Your task to perform on an android device: delete location history Image 0: 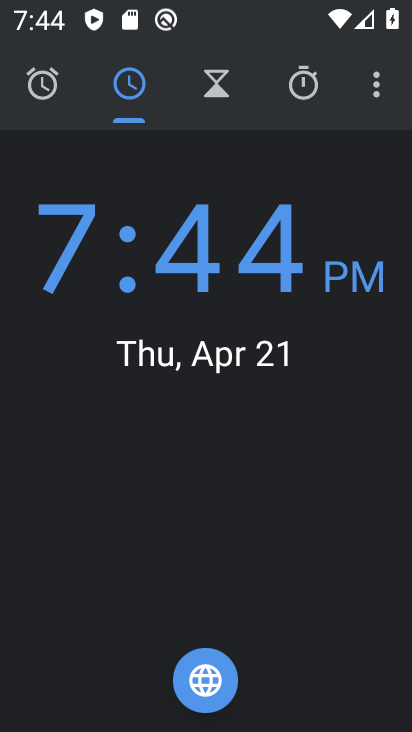
Step 0: press home button
Your task to perform on an android device: delete location history Image 1: 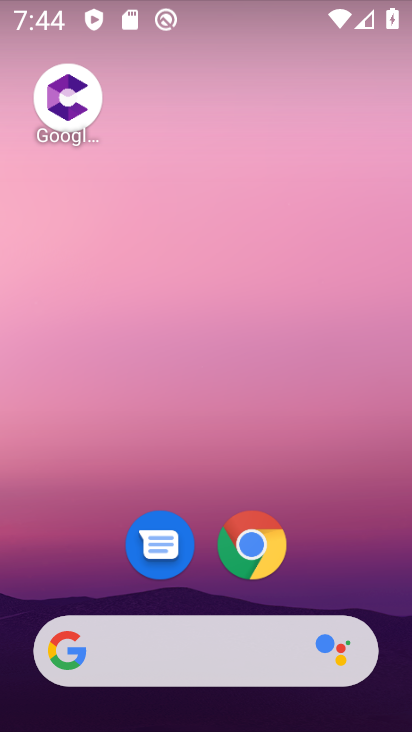
Step 1: drag from (237, 579) to (233, 12)
Your task to perform on an android device: delete location history Image 2: 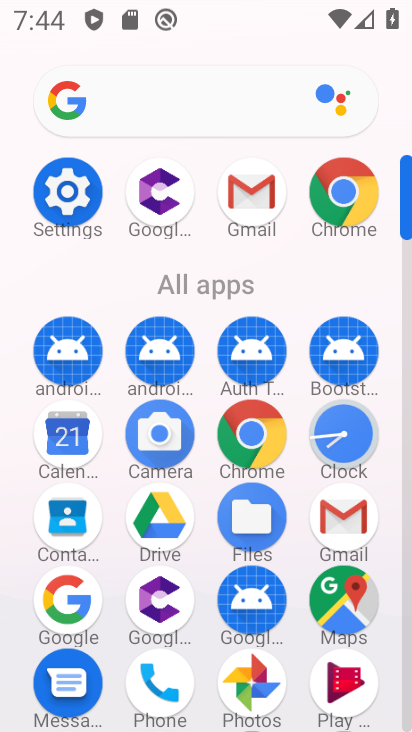
Step 2: click (334, 587)
Your task to perform on an android device: delete location history Image 3: 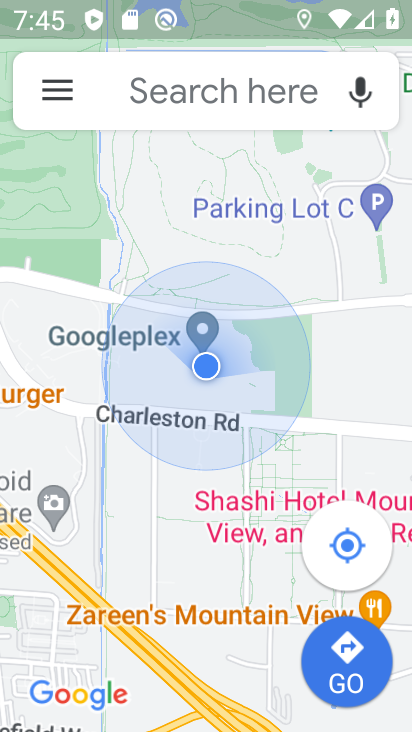
Step 3: click (64, 86)
Your task to perform on an android device: delete location history Image 4: 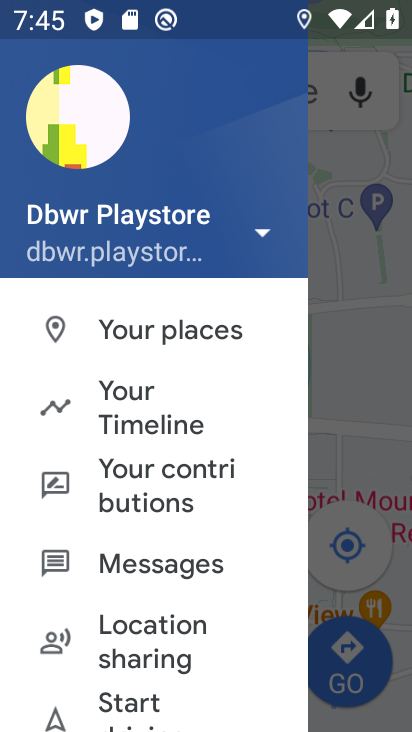
Step 4: click (157, 428)
Your task to perform on an android device: delete location history Image 5: 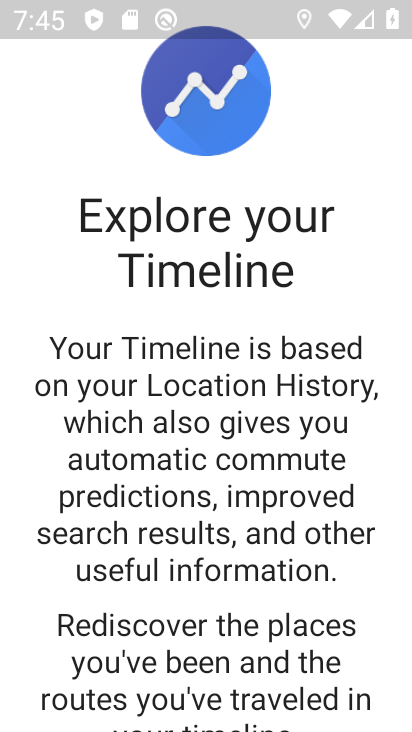
Step 5: drag from (221, 637) to (326, 119)
Your task to perform on an android device: delete location history Image 6: 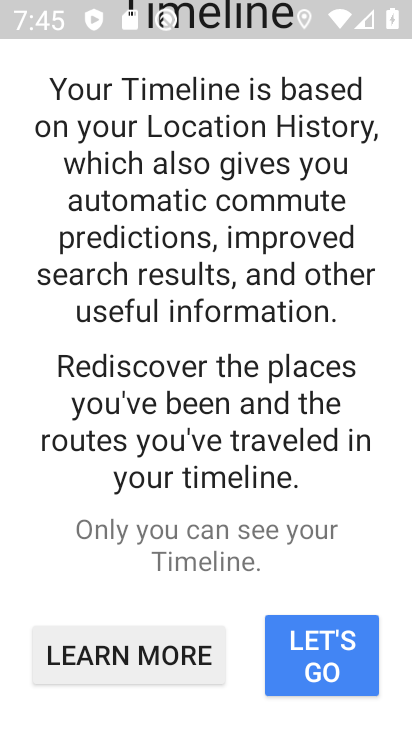
Step 6: drag from (243, 516) to (335, 165)
Your task to perform on an android device: delete location history Image 7: 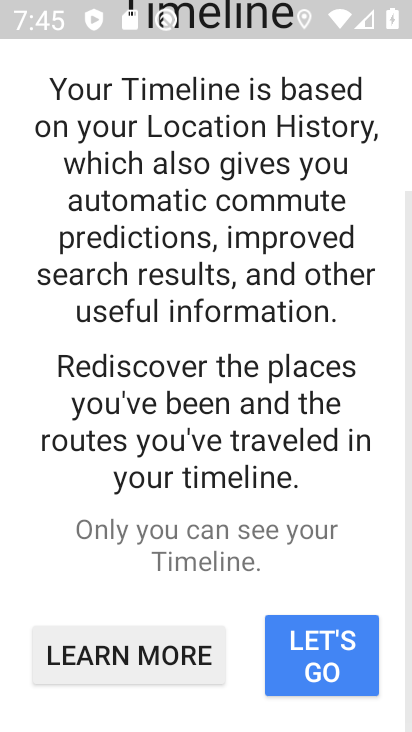
Step 7: click (301, 637)
Your task to perform on an android device: delete location history Image 8: 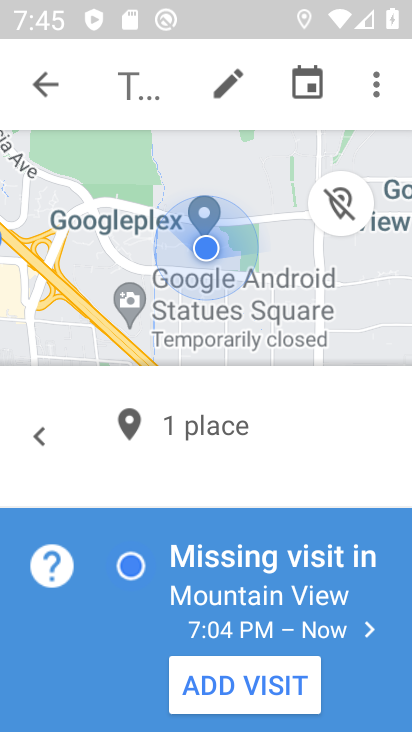
Step 8: click (369, 80)
Your task to perform on an android device: delete location history Image 9: 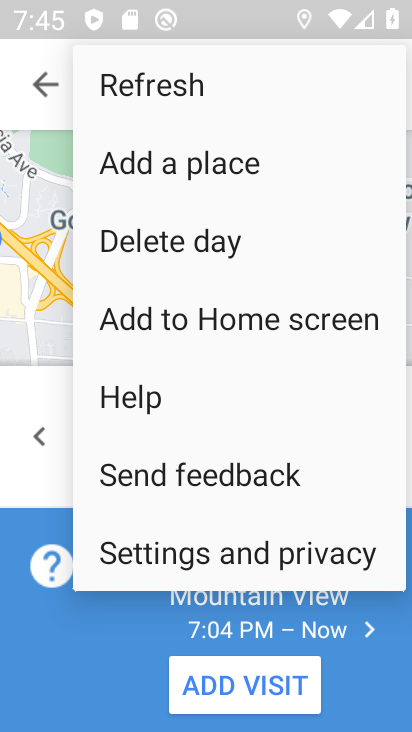
Step 9: click (264, 538)
Your task to perform on an android device: delete location history Image 10: 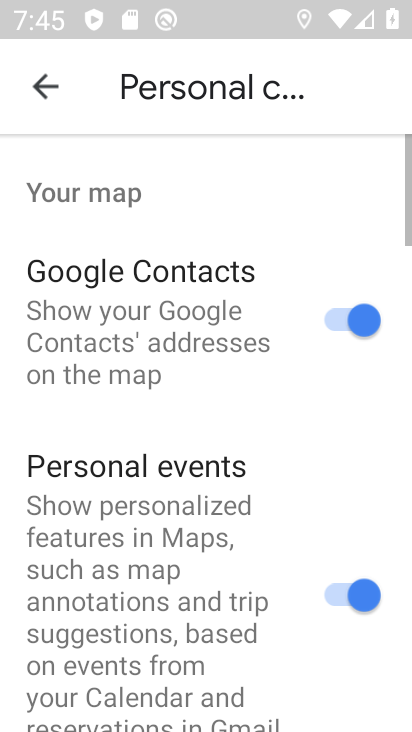
Step 10: drag from (246, 604) to (347, 72)
Your task to perform on an android device: delete location history Image 11: 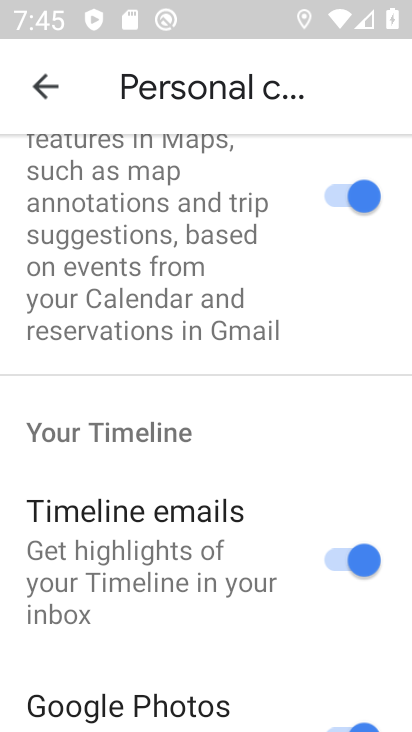
Step 11: drag from (238, 636) to (288, 96)
Your task to perform on an android device: delete location history Image 12: 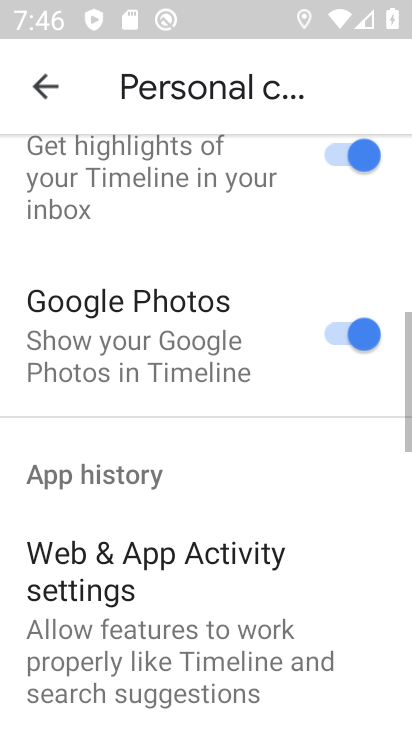
Step 12: drag from (176, 646) to (323, 0)
Your task to perform on an android device: delete location history Image 13: 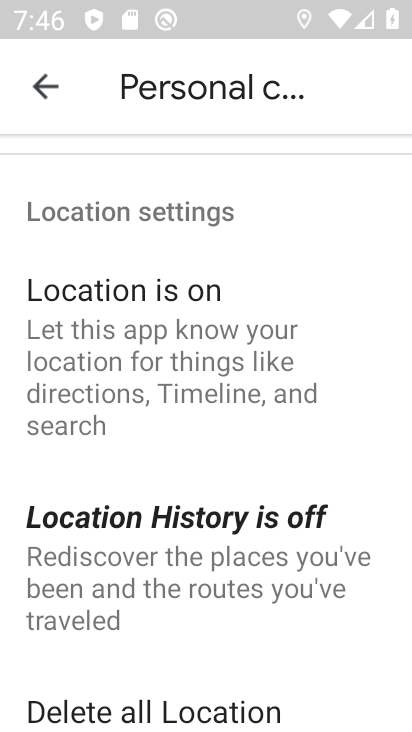
Step 13: drag from (239, 533) to (260, 198)
Your task to perform on an android device: delete location history Image 14: 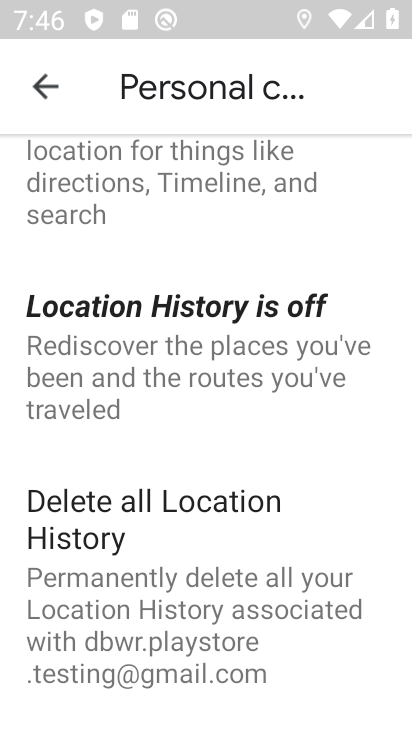
Step 14: click (193, 506)
Your task to perform on an android device: delete location history Image 15: 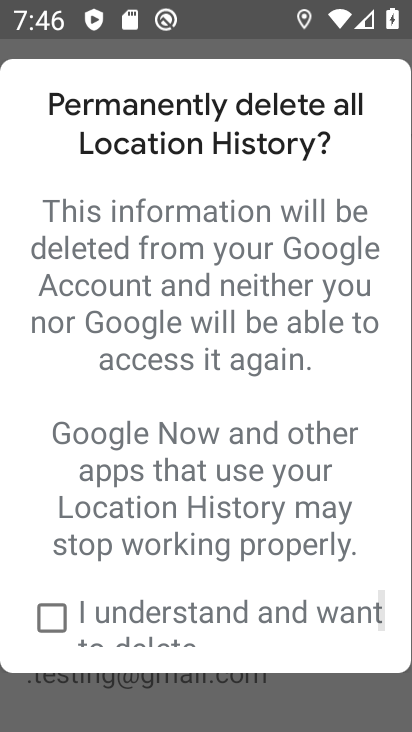
Step 15: drag from (156, 532) to (235, 122)
Your task to perform on an android device: delete location history Image 16: 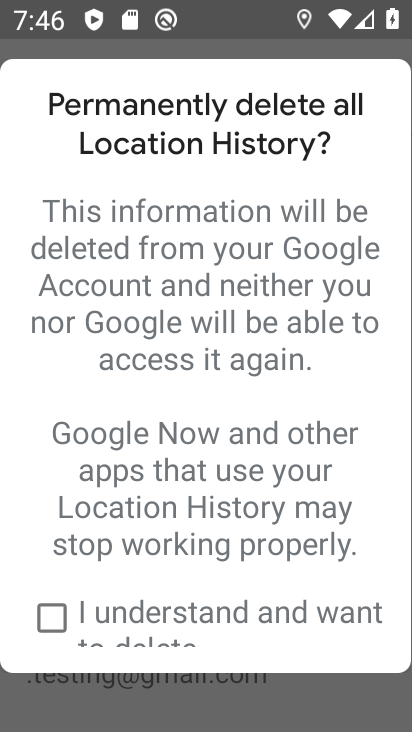
Step 16: click (52, 610)
Your task to perform on an android device: delete location history Image 17: 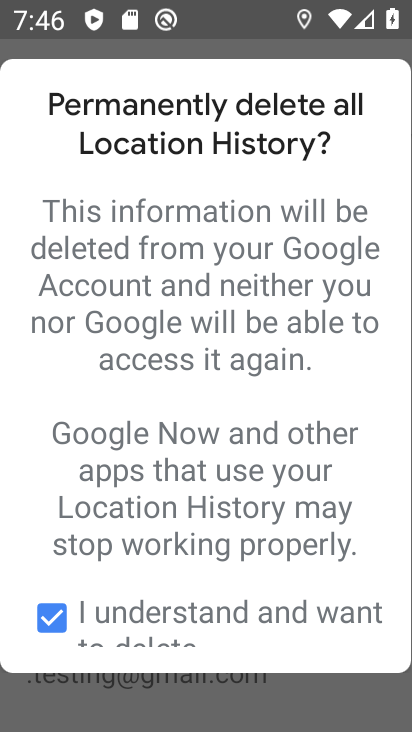
Step 17: task complete